Your task to perform on an android device: Open accessibility settings Image 0: 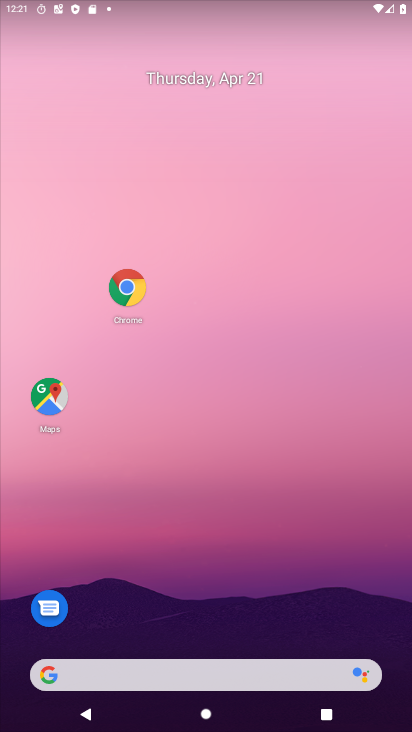
Step 0: drag from (237, 470) to (142, 65)
Your task to perform on an android device: Open accessibility settings Image 1: 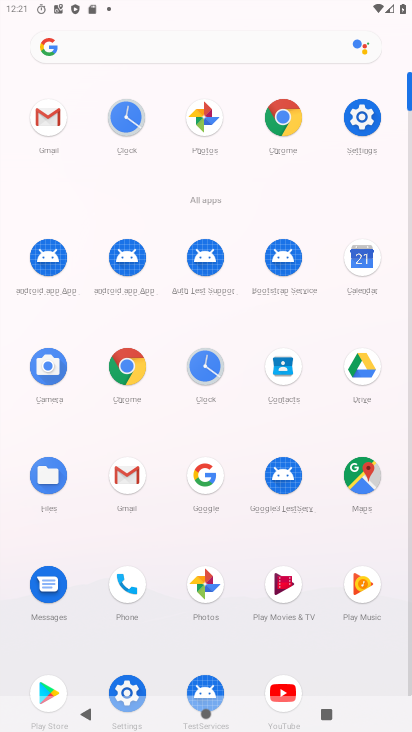
Step 1: click (361, 119)
Your task to perform on an android device: Open accessibility settings Image 2: 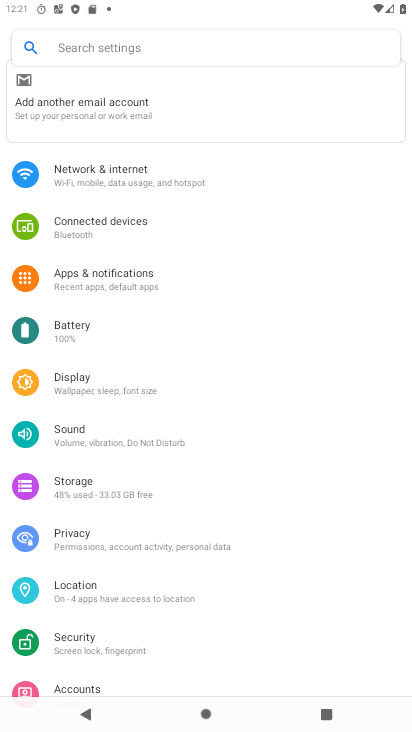
Step 2: drag from (135, 423) to (135, 251)
Your task to perform on an android device: Open accessibility settings Image 3: 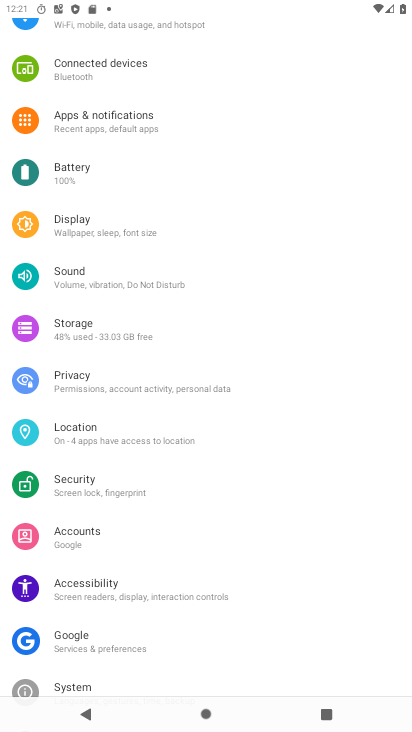
Step 3: click (85, 598)
Your task to perform on an android device: Open accessibility settings Image 4: 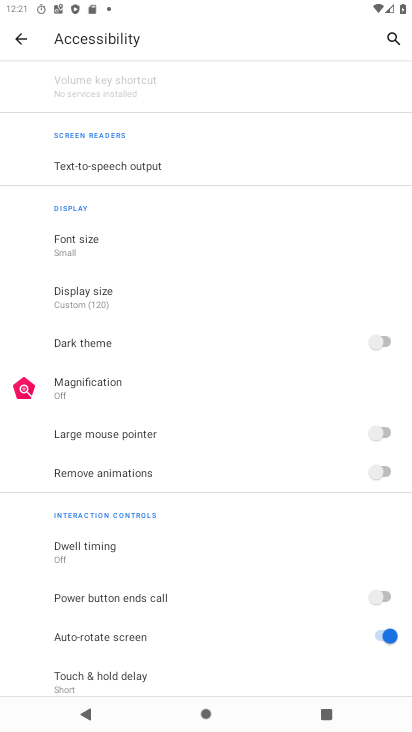
Step 4: task complete